Your task to perform on an android device: open app "Indeed Job Search" (install if not already installed) Image 0: 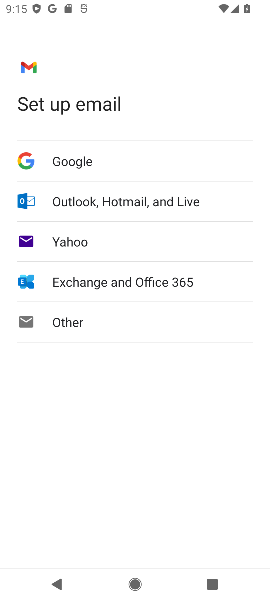
Step 0: press home button
Your task to perform on an android device: open app "Indeed Job Search" (install if not already installed) Image 1: 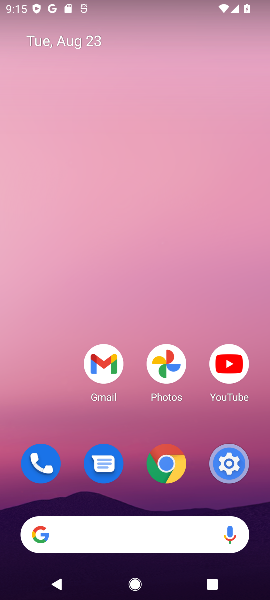
Step 1: drag from (135, 434) to (162, 1)
Your task to perform on an android device: open app "Indeed Job Search" (install if not already installed) Image 2: 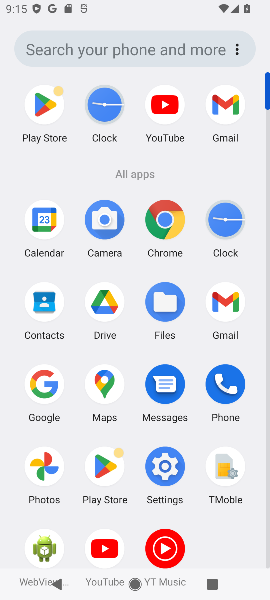
Step 2: click (42, 102)
Your task to perform on an android device: open app "Indeed Job Search" (install if not already installed) Image 3: 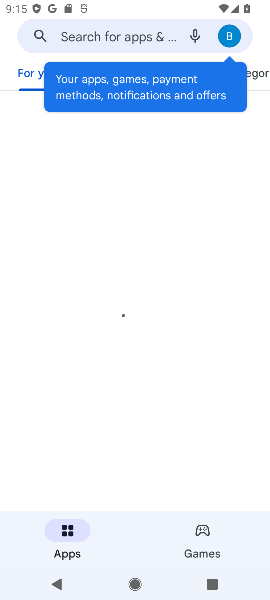
Step 3: click (87, 33)
Your task to perform on an android device: open app "Indeed Job Search" (install if not already installed) Image 4: 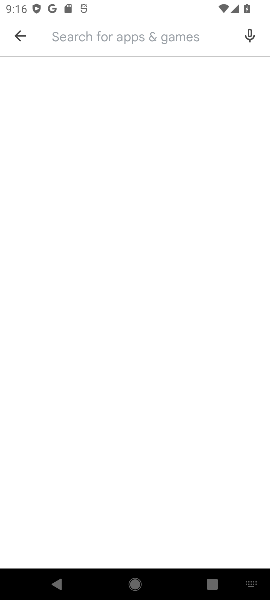
Step 4: click (107, 32)
Your task to perform on an android device: open app "Indeed Job Search" (install if not already installed) Image 5: 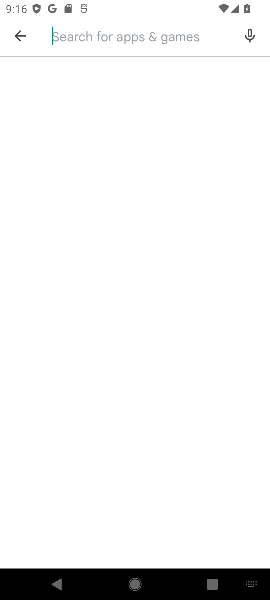
Step 5: type "Indeed Job Search"
Your task to perform on an android device: open app "Indeed Job Search" (install if not already installed) Image 6: 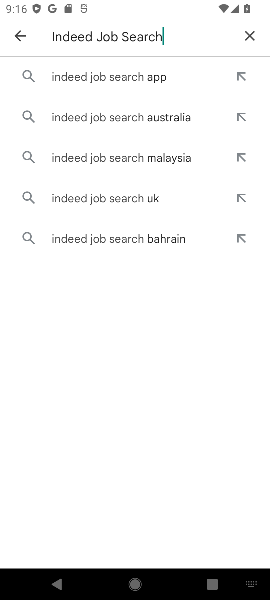
Step 6: click (123, 73)
Your task to perform on an android device: open app "Indeed Job Search" (install if not already installed) Image 7: 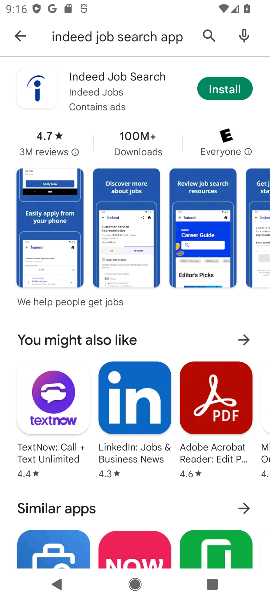
Step 7: click (221, 89)
Your task to perform on an android device: open app "Indeed Job Search" (install if not already installed) Image 8: 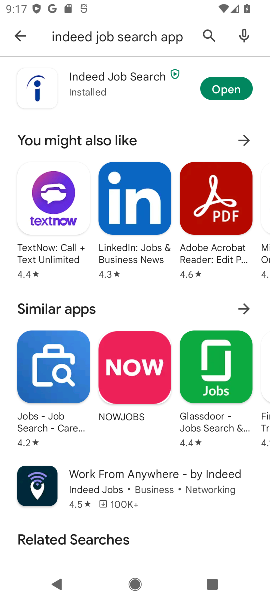
Step 8: click (223, 87)
Your task to perform on an android device: open app "Indeed Job Search" (install if not already installed) Image 9: 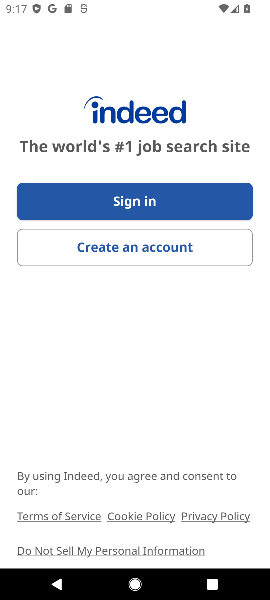
Step 9: click (139, 195)
Your task to perform on an android device: open app "Indeed Job Search" (install if not already installed) Image 10: 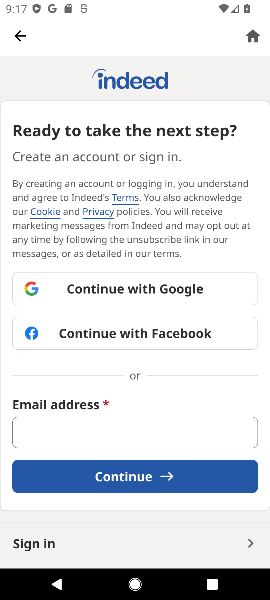
Step 10: click (108, 283)
Your task to perform on an android device: open app "Indeed Job Search" (install if not already installed) Image 11: 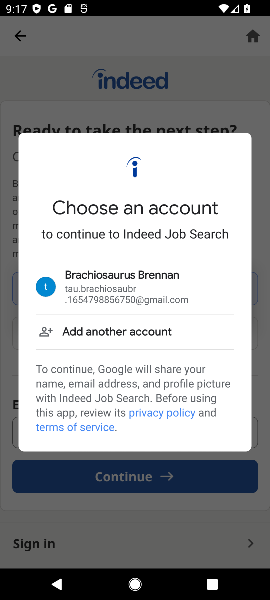
Step 11: click (108, 283)
Your task to perform on an android device: open app "Indeed Job Search" (install if not already installed) Image 12: 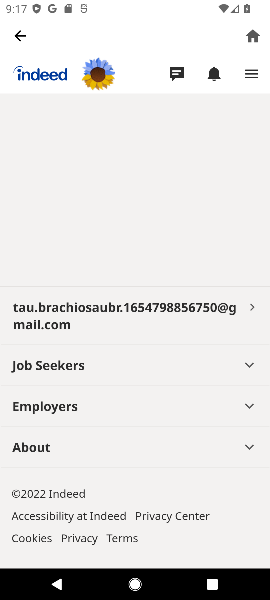
Step 12: task complete